Your task to perform on an android device: toggle notification dots Image 0: 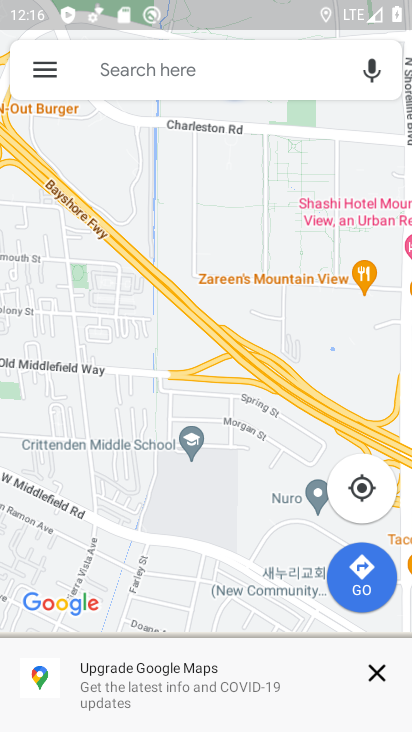
Step 0: press home button
Your task to perform on an android device: toggle notification dots Image 1: 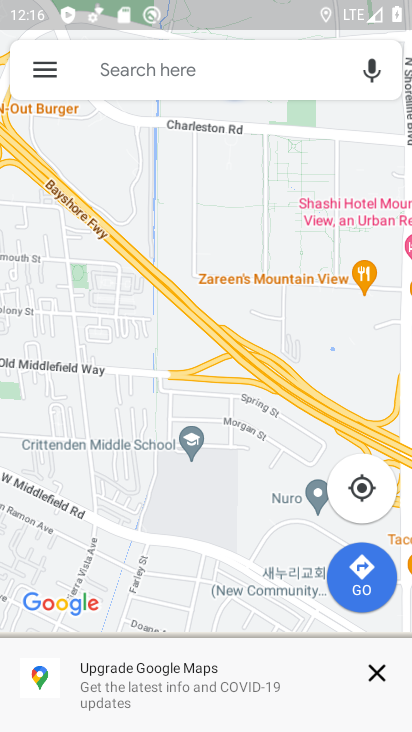
Step 1: press home button
Your task to perform on an android device: toggle notification dots Image 2: 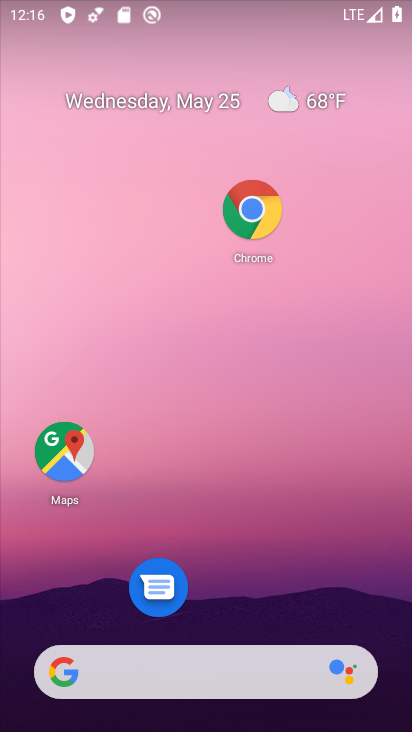
Step 2: drag from (232, 621) to (241, 193)
Your task to perform on an android device: toggle notification dots Image 3: 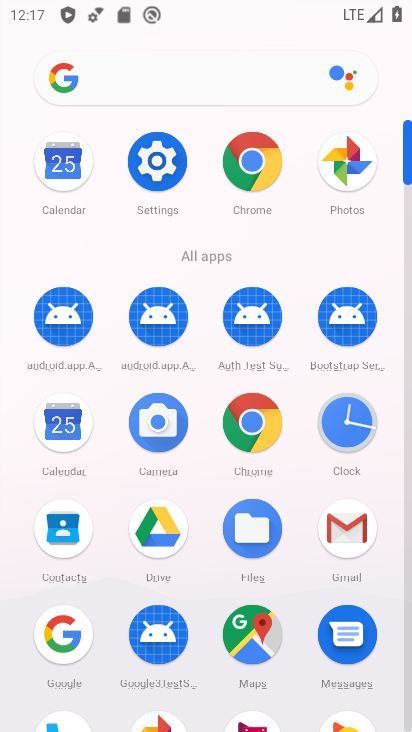
Step 3: click (157, 155)
Your task to perform on an android device: toggle notification dots Image 4: 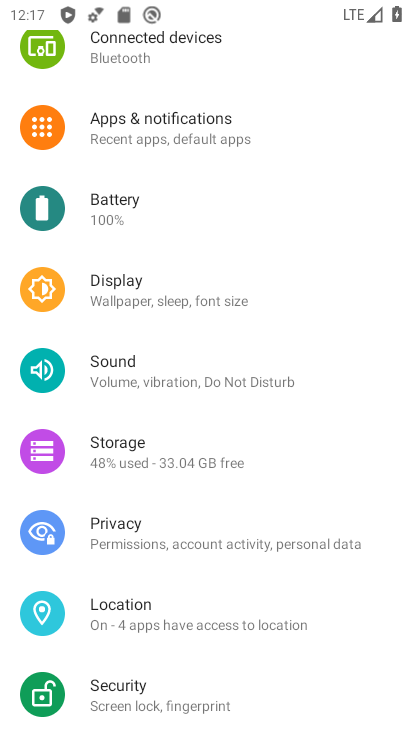
Step 4: click (167, 122)
Your task to perform on an android device: toggle notification dots Image 5: 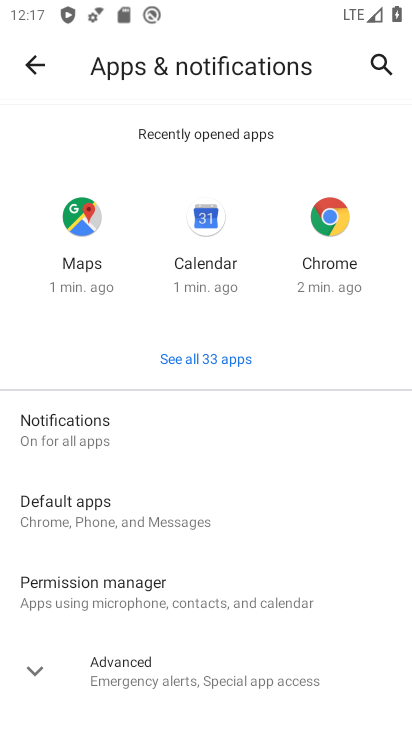
Step 5: click (126, 428)
Your task to perform on an android device: toggle notification dots Image 6: 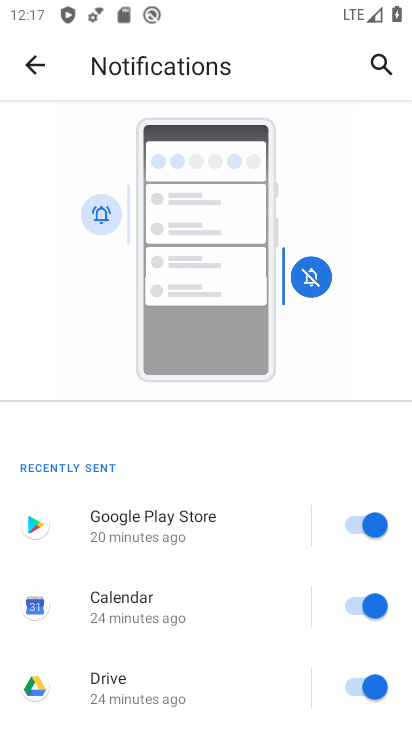
Step 6: drag from (234, 654) to (255, 237)
Your task to perform on an android device: toggle notification dots Image 7: 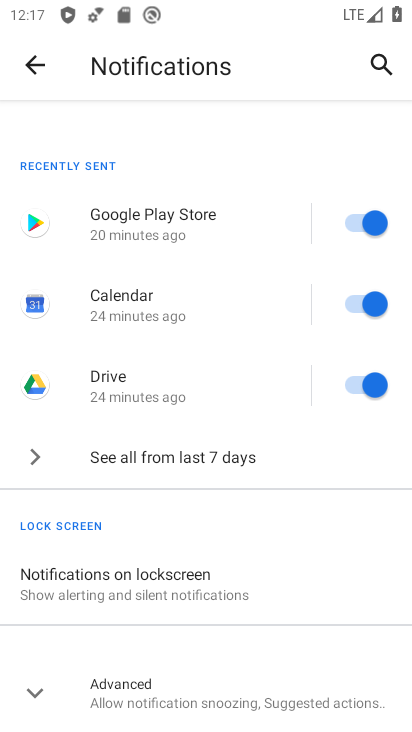
Step 7: click (107, 689)
Your task to perform on an android device: toggle notification dots Image 8: 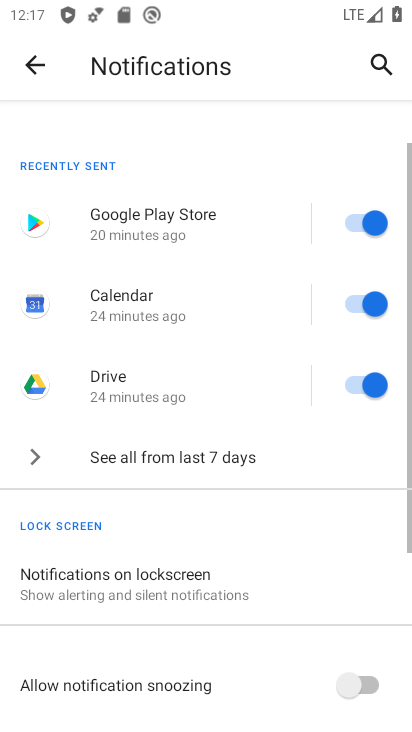
Step 8: drag from (201, 675) to (232, 258)
Your task to perform on an android device: toggle notification dots Image 9: 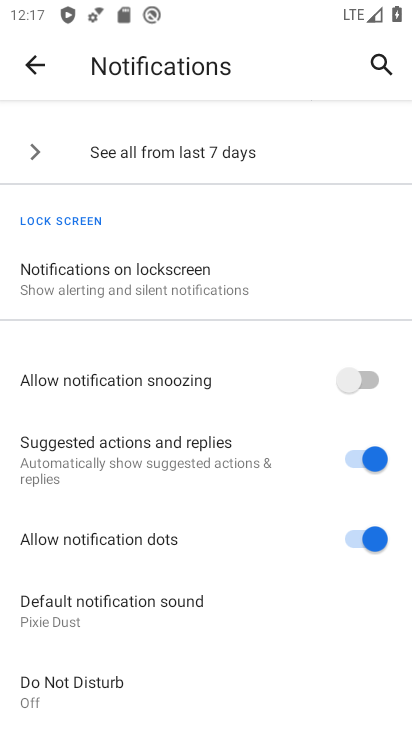
Step 9: click (357, 535)
Your task to perform on an android device: toggle notification dots Image 10: 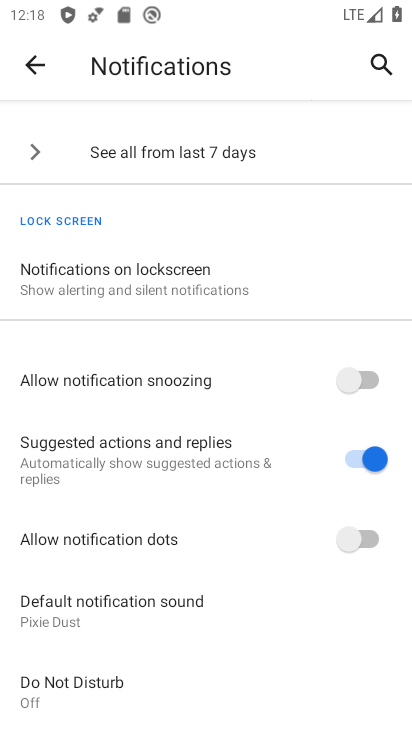
Step 10: task complete